Your task to perform on an android device: Do I have any events today? Image 0: 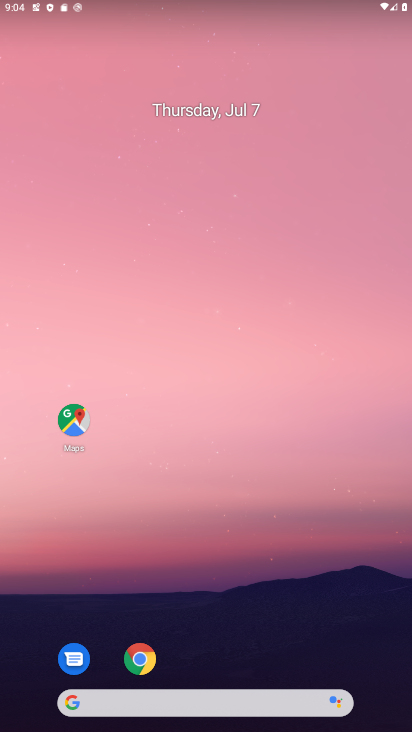
Step 0: drag from (232, 650) to (123, 12)
Your task to perform on an android device: Do I have any events today? Image 1: 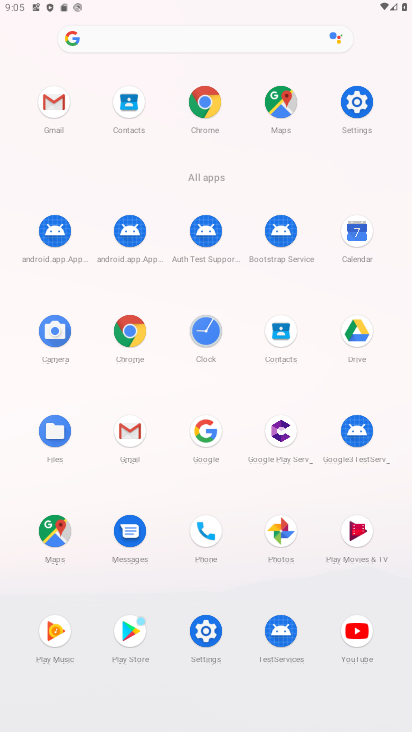
Step 1: click (357, 244)
Your task to perform on an android device: Do I have any events today? Image 2: 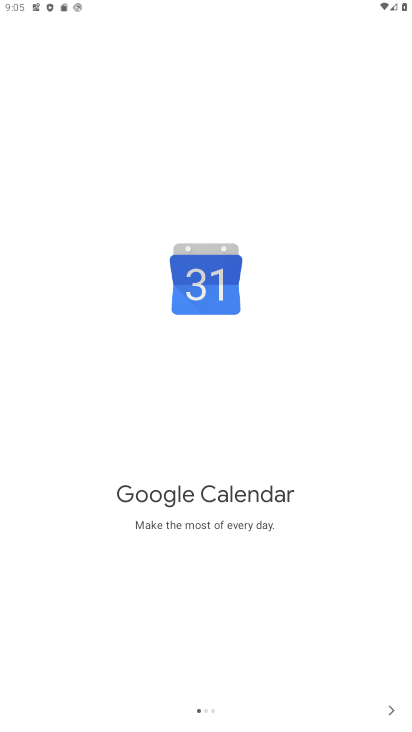
Step 2: click (388, 708)
Your task to perform on an android device: Do I have any events today? Image 3: 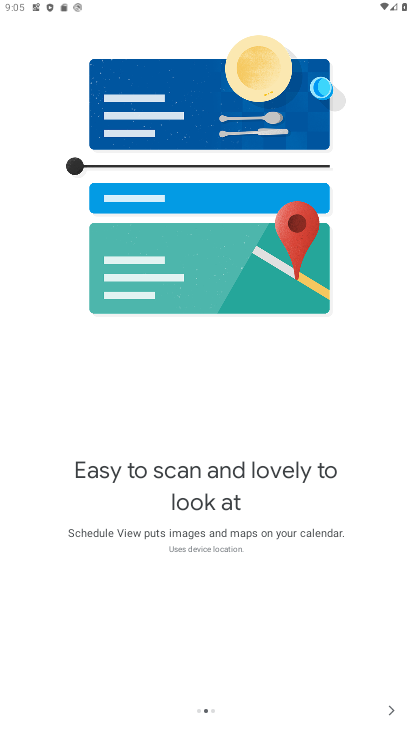
Step 3: click (388, 708)
Your task to perform on an android device: Do I have any events today? Image 4: 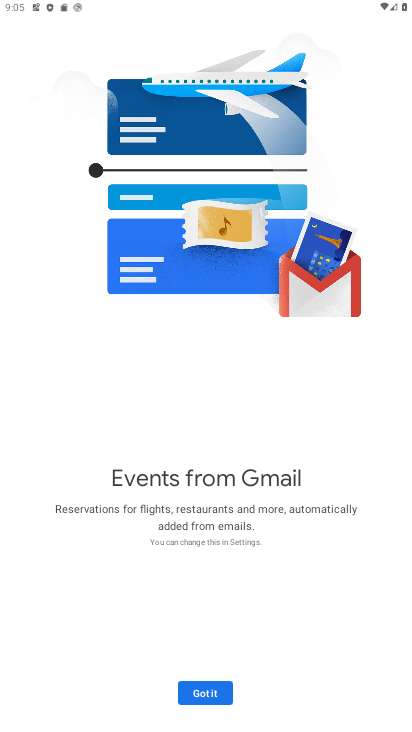
Step 4: click (388, 708)
Your task to perform on an android device: Do I have any events today? Image 5: 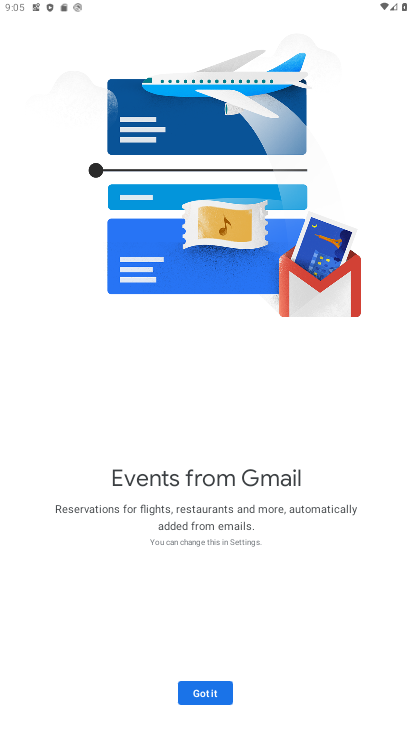
Step 5: click (205, 691)
Your task to perform on an android device: Do I have any events today? Image 6: 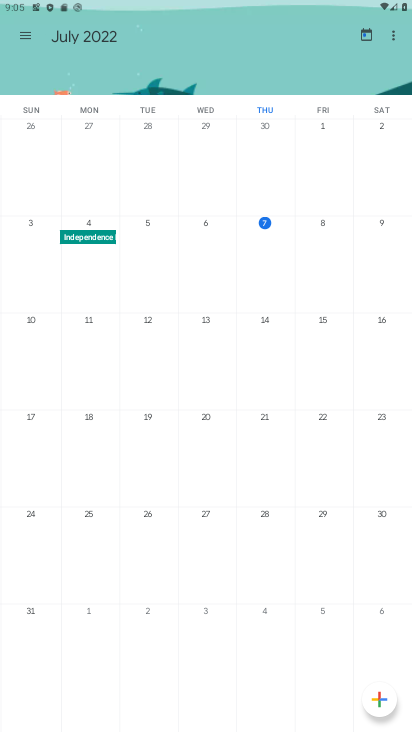
Step 6: click (24, 36)
Your task to perform on an android device: Do I have any events today? Image 7: 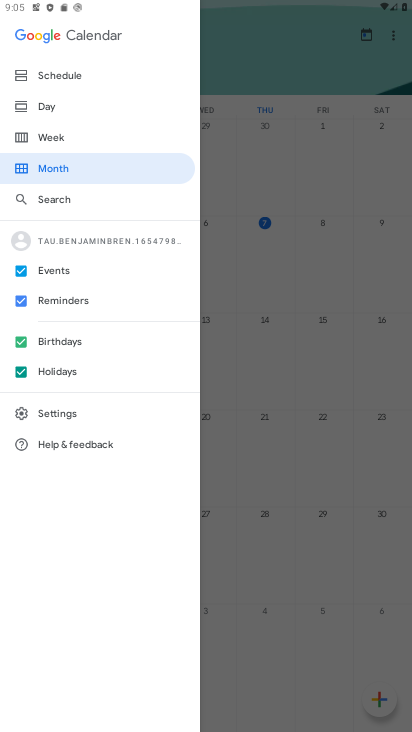
Step 7: click (83, 306)
Your task to perform on an android device: Do I have any events today? Image 8: 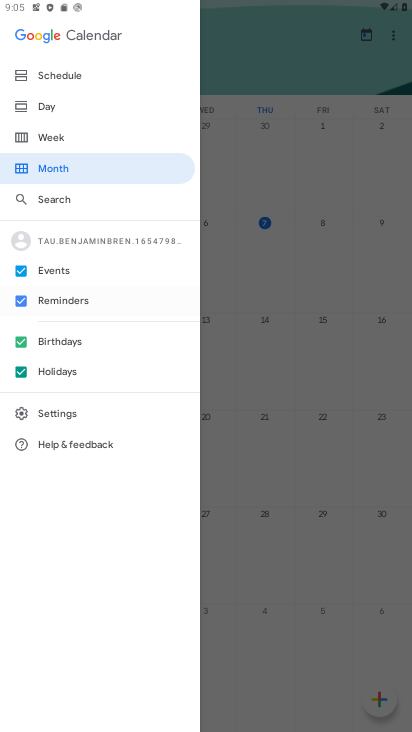
Step 8: click (75, 342)
Your task to perform on an android device: Do I have any events today? Image 9: 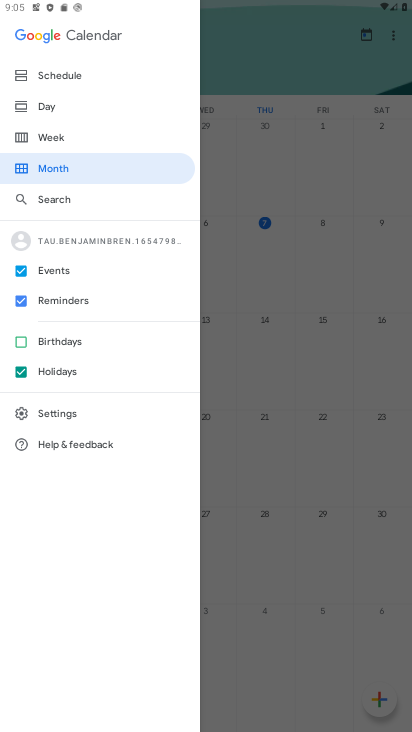
Step 9: click (49, 376)
Your task to perform on an android device: Do I have any events today? Image 10: 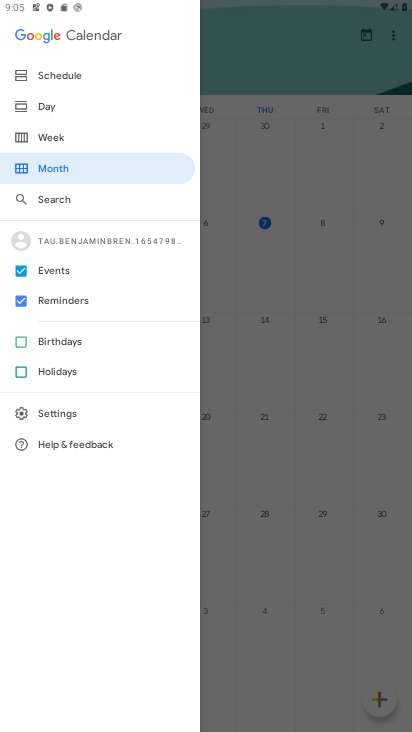
Step 10: click (55, 101)
Your task to perform on an android device: Do I have any events today? Image 11: 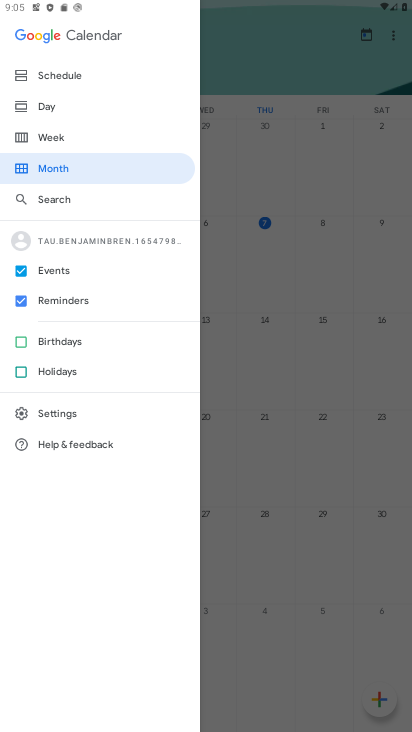
Step 11: click (72, 105)
Your task to perform on an android device: Do I have any events today? Image 12: 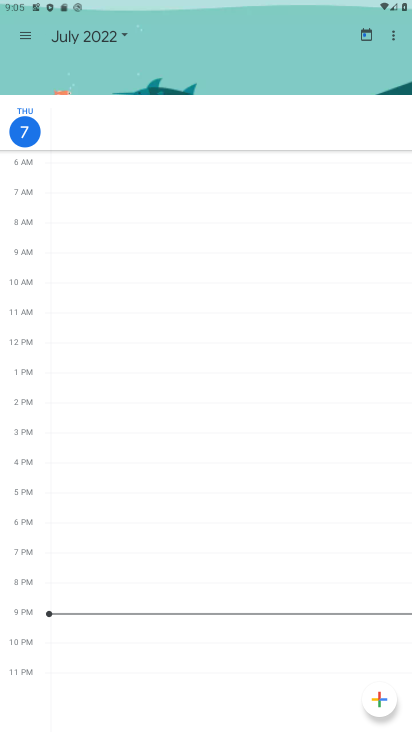
Step 12: task complete